Your task to perform on an android device: Open the stopwatch Image 0: 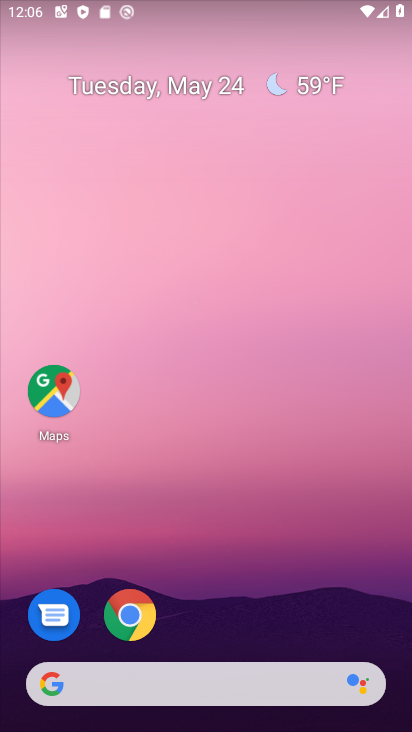
Step 0: drag from (295, 560) to (226, 51)
Your task to perform on an android device: Open the stopwatch Image 1: 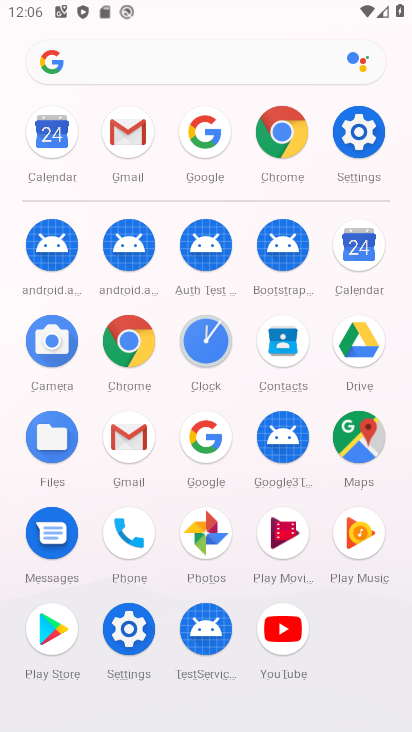
Step 1: drag from (6, 559) to (9, 159)
Your task to perform on an android device: Open the stopwatch Image 2: 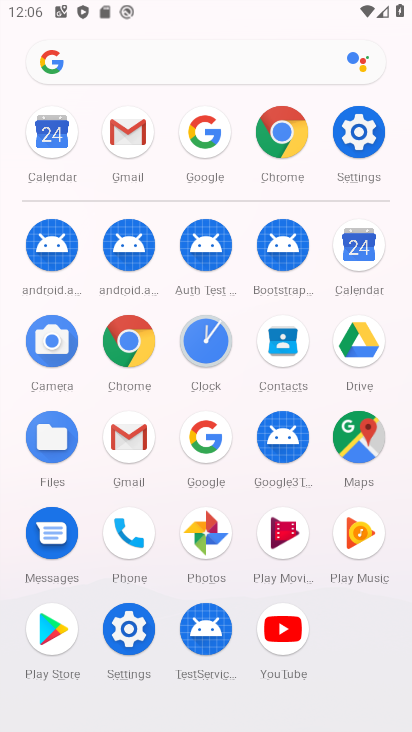
Step 2: click (208, 336)
Your task to perform on an android device: Open the stopwatch Image 3: 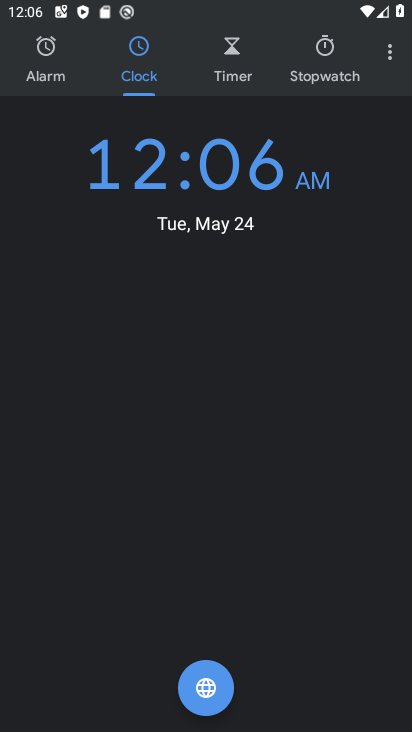
Step 3: click (319, 51)
Your task to perform on an android device: Open the stopwatch Image 4: 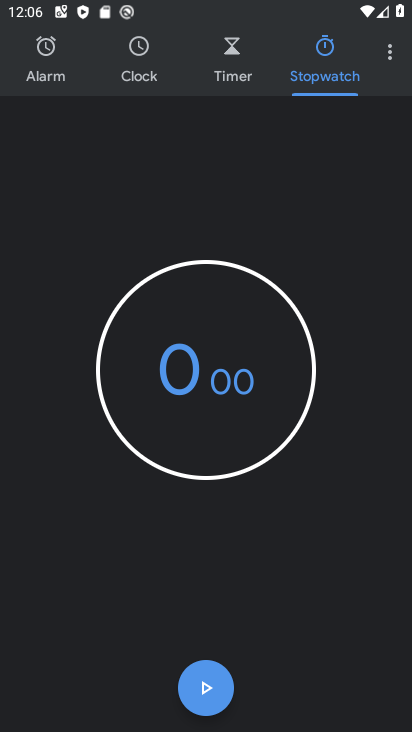
Step 4: task complete